Your task to perform on an android device: Open battery settings Image 0: 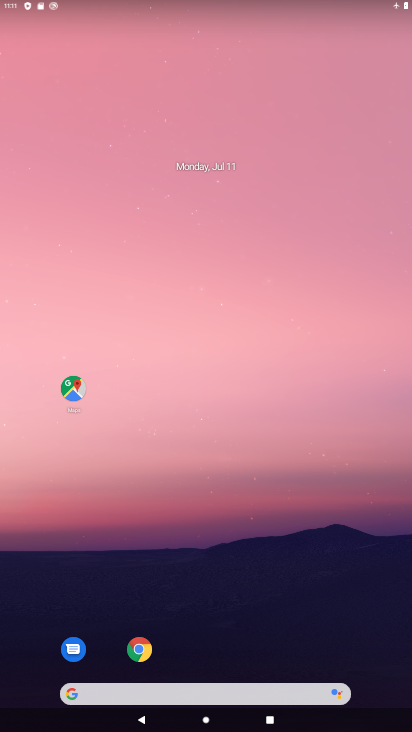
Step 0: drag from (329, 605) to (223, 175)
Your task to perform on an android device: Open battery settings Image 1: 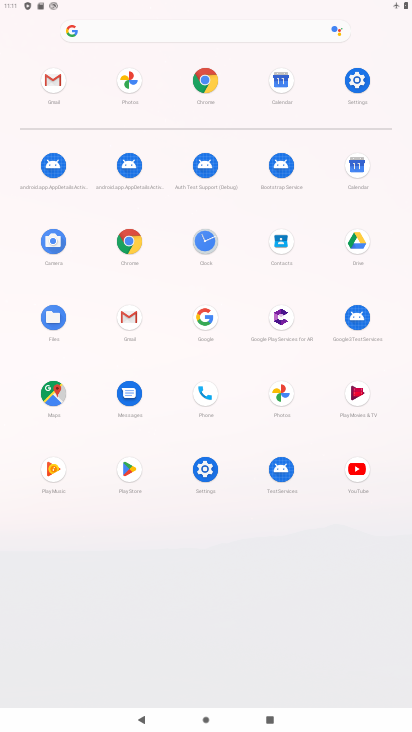
Step 1: click (360, 83)
Your task to perform on an android device: Open battery settings Image 2: 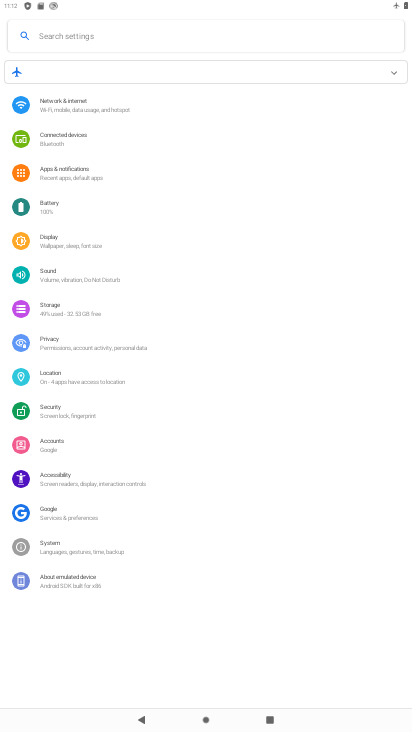
Step 2: click (50, 202)
Your task to perform on an android device: Open battery settings Image 3: 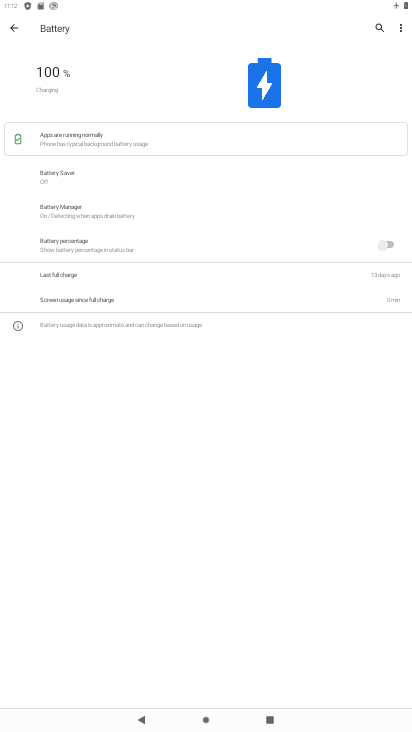
Step 3: task complete